Your task to perform on an android device: check the backup settings in the google photos Image 0: 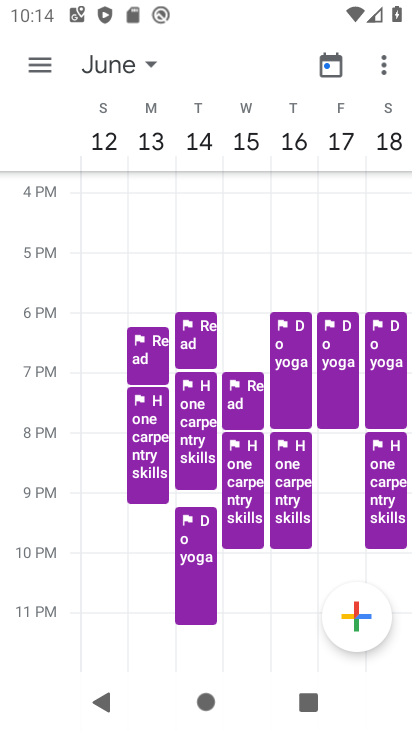
Step 0: press home button
Your task to perform on an android device: check the backup settings in the google photos Image 1: 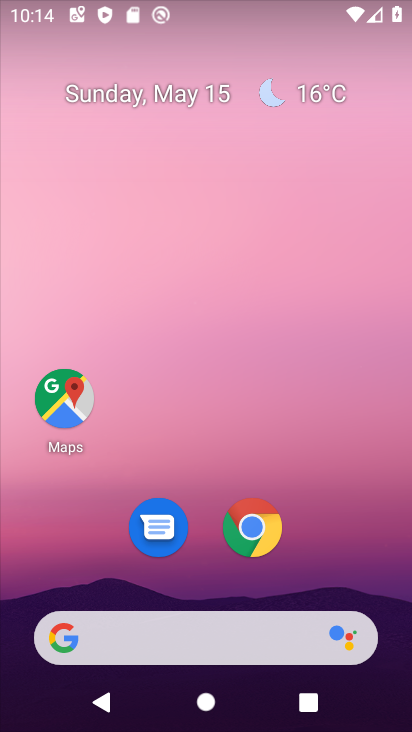
Step 1: drag from (373, 585) to (387, 51)
Your task to perform on an android device: check the backup settings in the google photos Image 2: 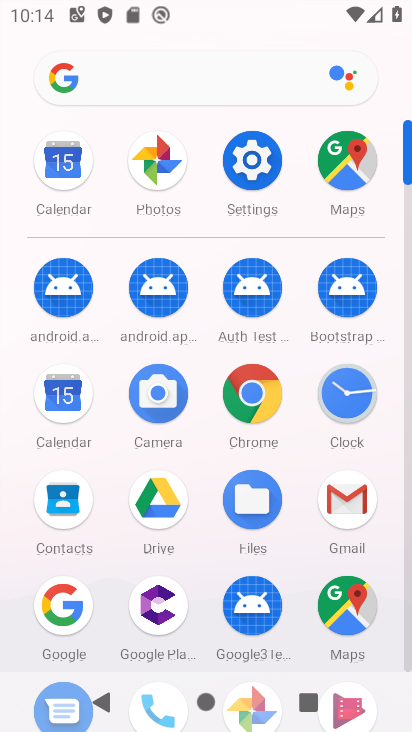
Step 2: click (151, 169)
Your task to perform on an android device: check the backup settings in the google photos Image 3: 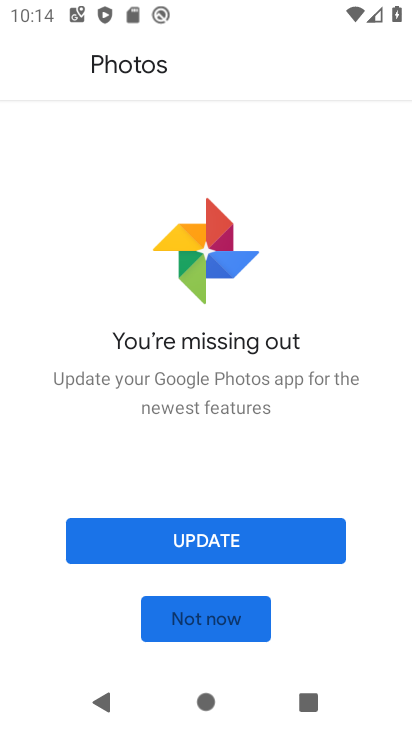
Step 3: click (212, 619)
Your task to perform on an android device: check the backup settings in the google photos Image 4: 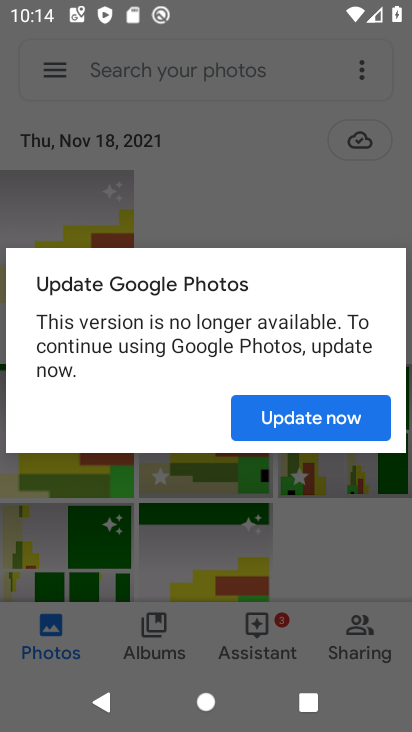
Step 4: click (280, 424)
Your task to perform on an android device: check the backup settings in the google photos Image 5: 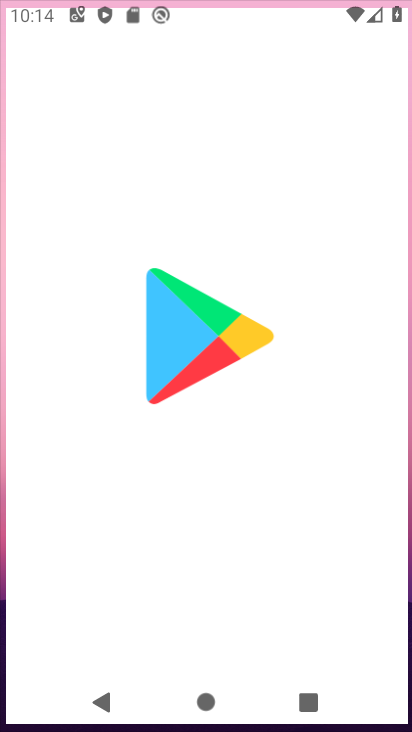
Step 5: click (43, 72)
Your task to perform on an android device: check the backup settings in the google photos Image 6: 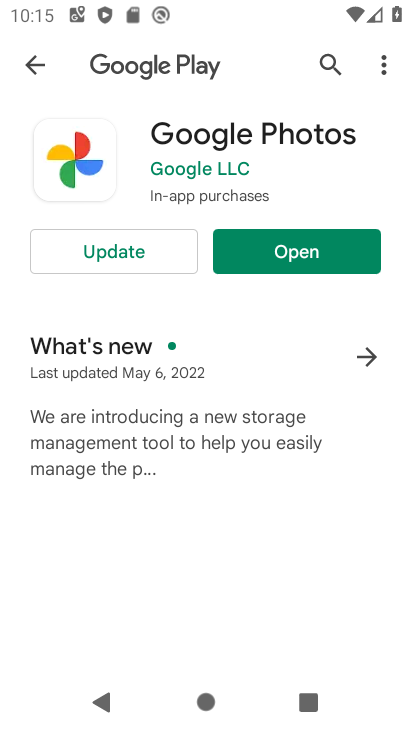
Step 6: click (310, 258)
Your task to perform on an android device: check the backup settings in the google photos Image 7: 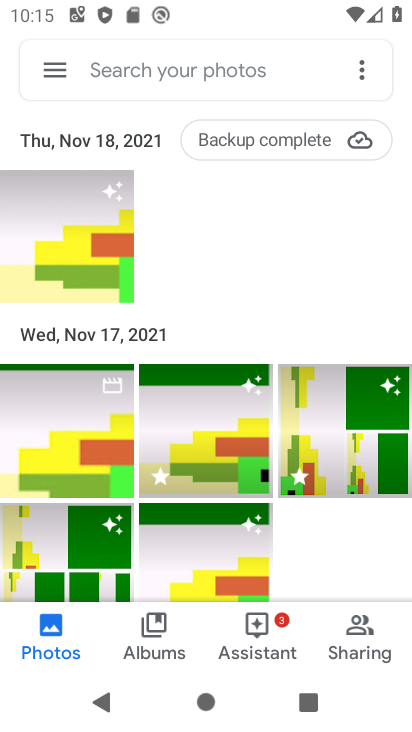
Step 7: click (54, 73)
Your task to perform on an android device: check the backup settings in the google photos Image 8: 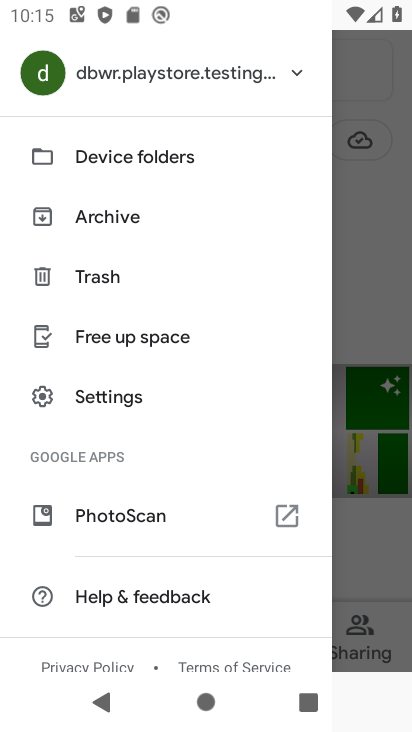
Step 8: click (84, 398)
Your task to perform on an android device: check the backup settings in the google photos Image 9: 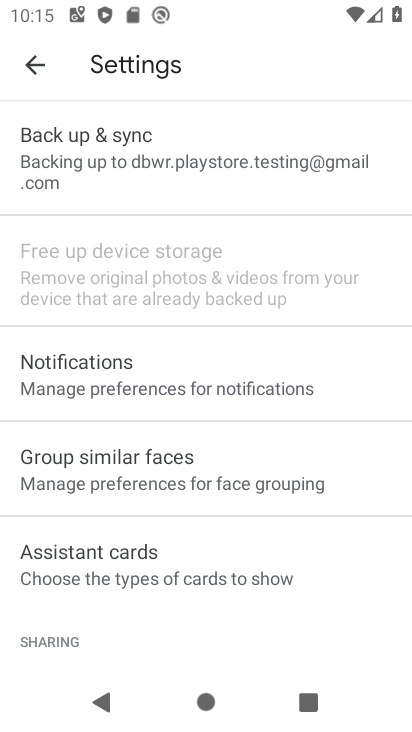
Step 9: click (123, 159)
Your task to perform on an android device: check the backup settings in the google photos Image 10: 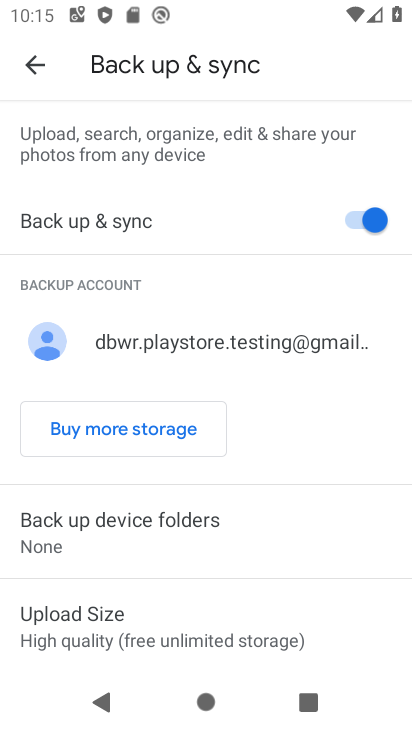
Step 10: task complete